Your task to perform on an android device: set default search engine in the chrome app Image 0: 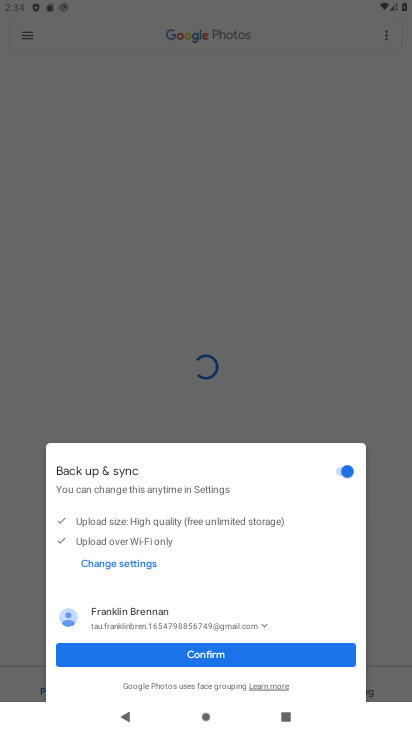
Step 0: click (231, 661)
Your task to perform on an android device: set default search engine in the chrome app Image 1: 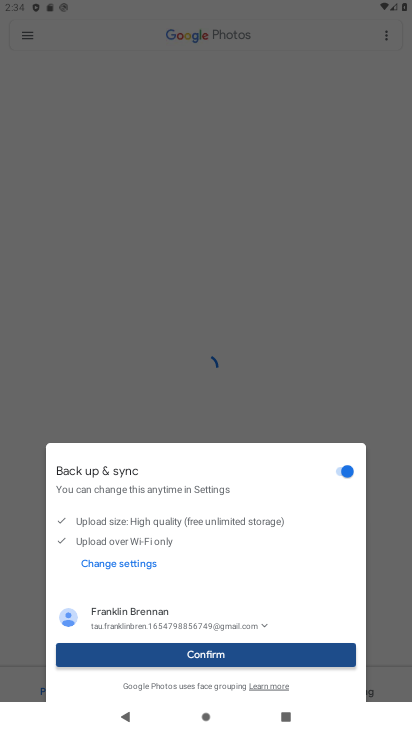
Step 1: click (232, 659)
Your task to perform on an android device: set default search engine in the chrome app Image 2: 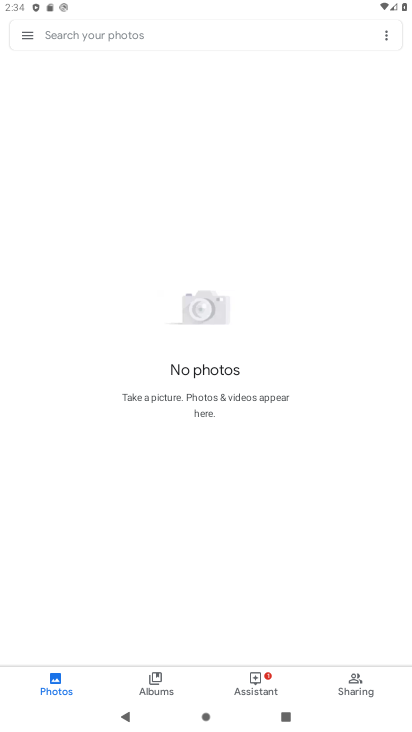
Step 2: press back button
Your task to perform on an android device: set default search engine in the chrome app Image 3: 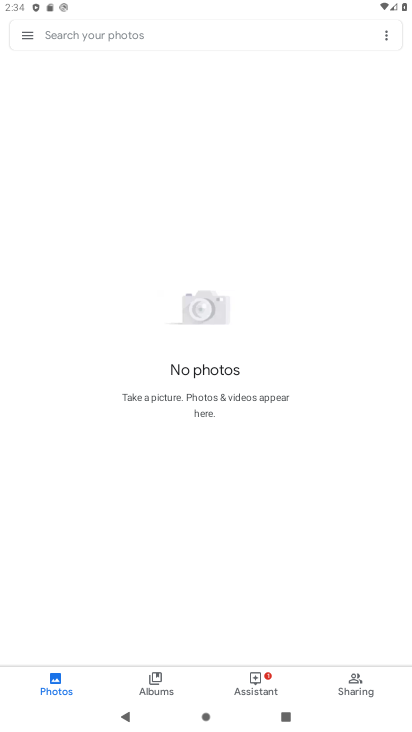
Step 3: press back button
Your task to perform on an android device: set default search engine in the chrome app Image 4: 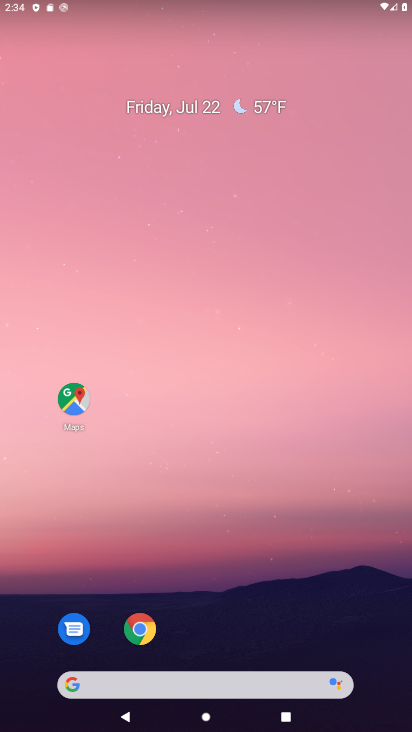
Step 4: press home button
Your task to perform on an android device: set default search engine in the chrome app Image 5: 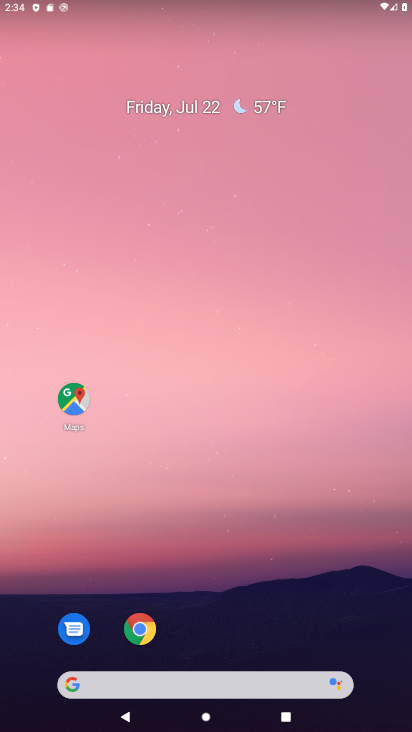
Step 5: drag from (215, 544) to (185, 100)
Your task to perform on an android device: set default search engine in the chrome app Image 6: 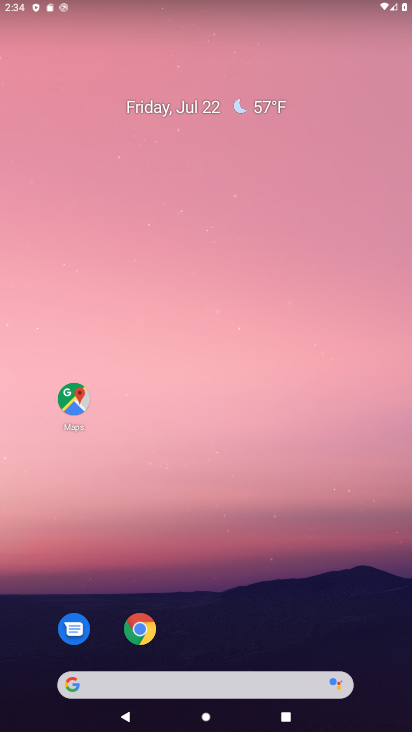
Step 6: drag from (253, 514) to (241, 191)
Your task to perform on an android device: set default search engine in the chrome app Image 7: 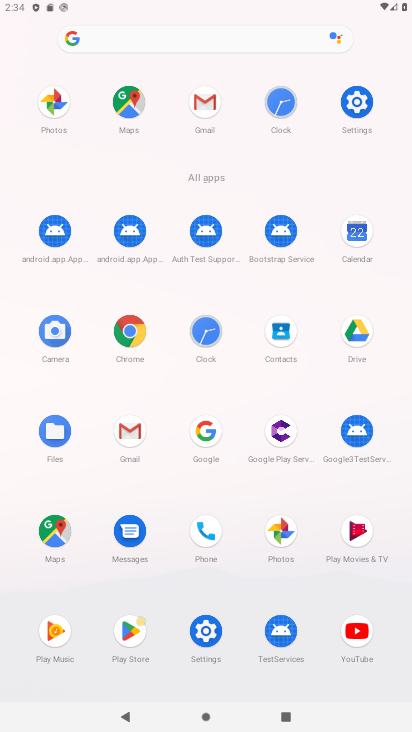
Step 7: click (123, 325)
Your task to perform on an android device: set default search engine in the chrome app Image 8: 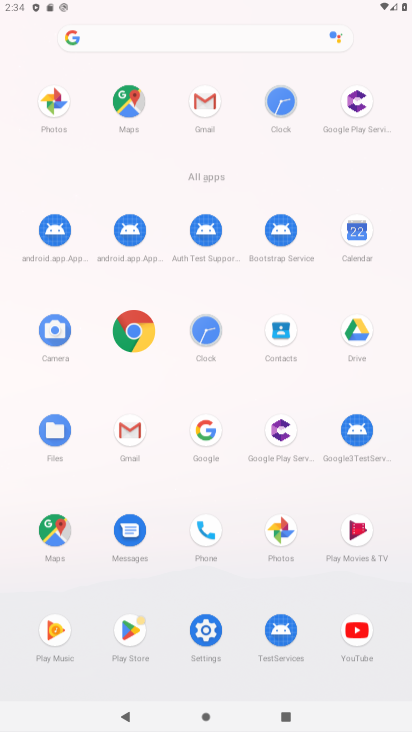
Step 8: click (127, 332)
Your task to perform on an android device: set default search engine in the chrome app Image 9: 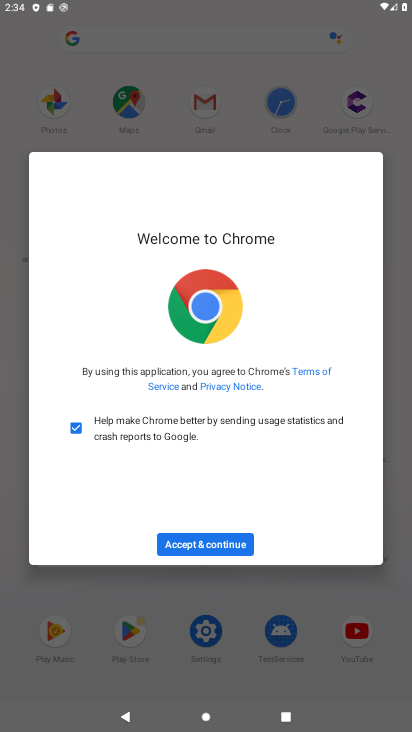
Step 9: click (208, 543)
Your task to perform on an android device: set default search engine in the chrome app Image 10: 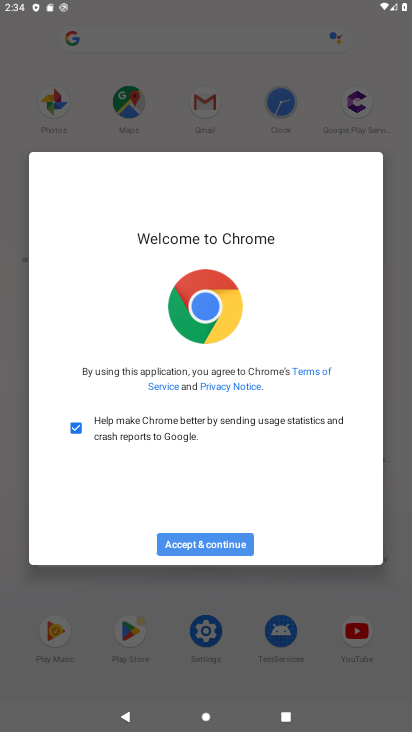
Step 10: click (209, 543)
Your task to perform on an android device: set default search engine in the chrome app Image 11: 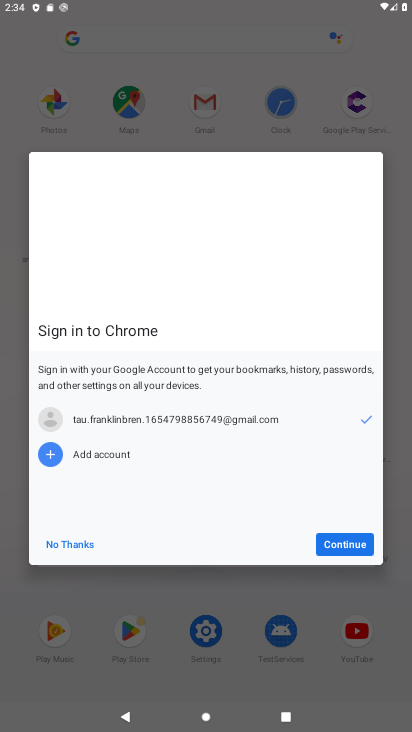
Step 11: click (212, 547)
Your task to perform on an android device: set default search engine in the chrome app Image 12: 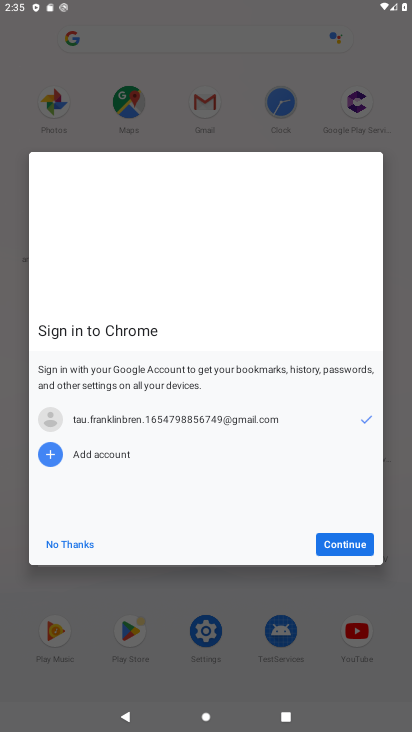
Step 12: click (65, 551)
Your task to perform on an android device: set default search engine in the chrome app Image 13: 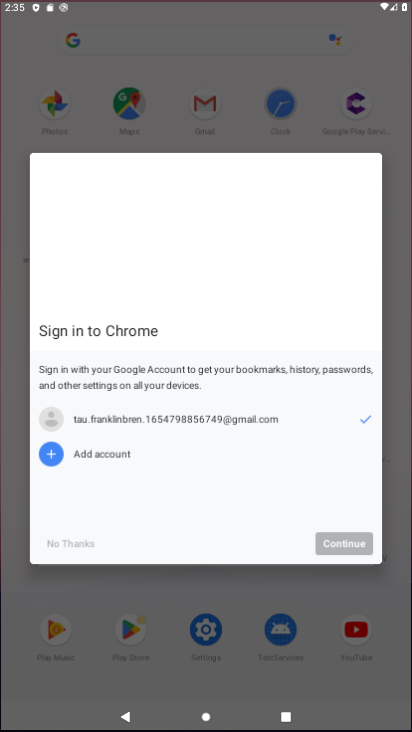
Step 13: click (66, 548)
Your task to perform on an android device: set default search engine in the chrome app Image 14: 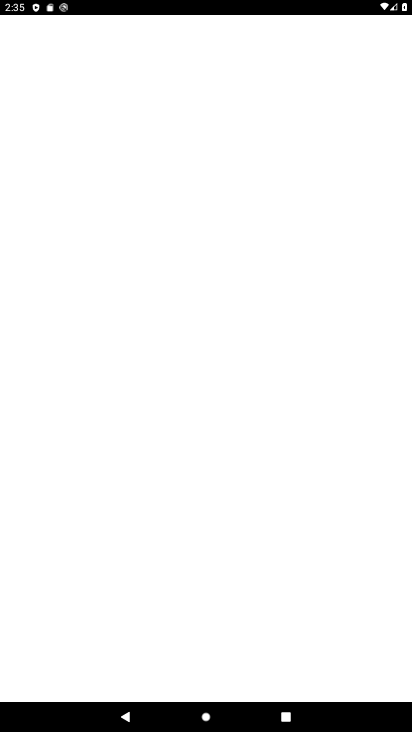
Step 14: click (66, 548)
Your task to perform on an android device: set default search engine in the chrome app Image 15: 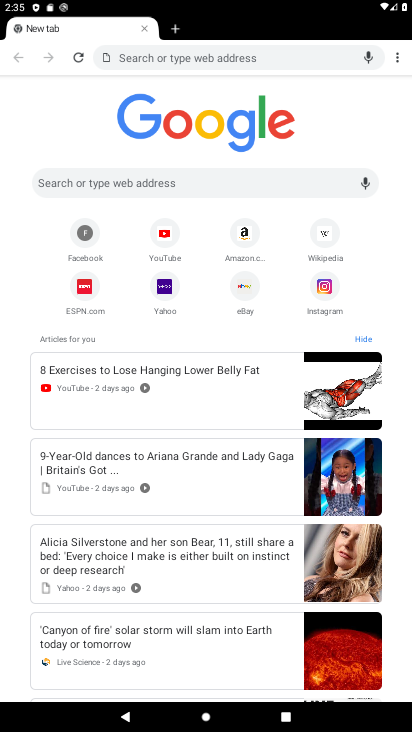
Step 15: click (392, 62)
Your task to perform on an android device: set default search engine in the chrome app Image 16: 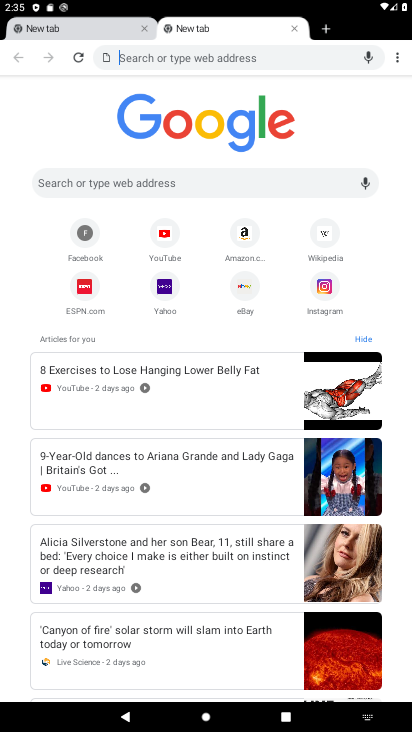
Step 16: click (393, 55)
Your task to perform on an android device: set default search engine in the chrome app Image 17: 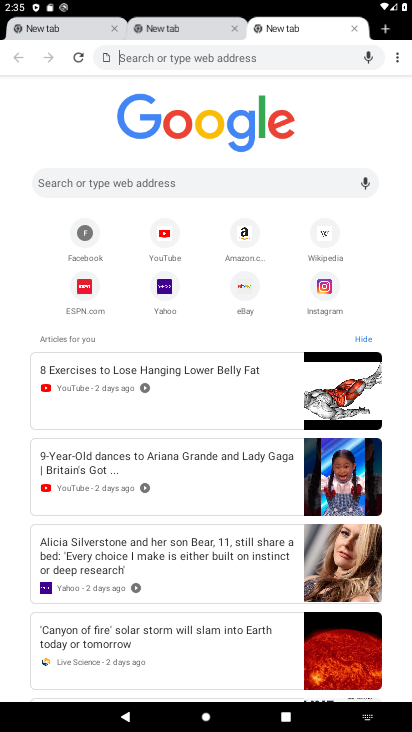
Step 17: drag from (386, 55) to (286, 58)
Your task to perform on an android device: set default search engine in the chrome app Image 18: 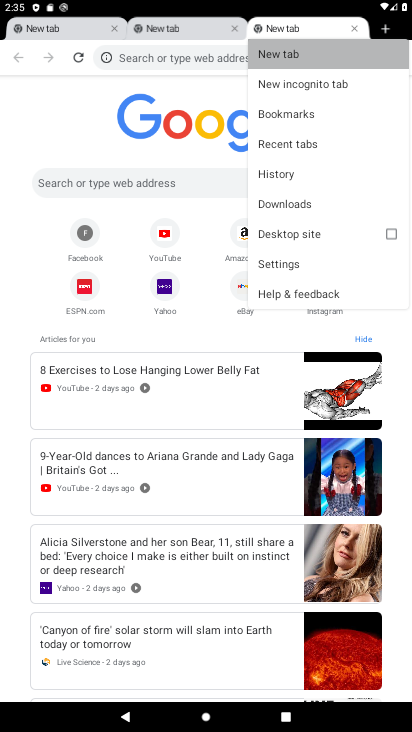
Step 18: click (286, 58)
Your task to perform on an android device: set default search engine in the chrome app Image 19: 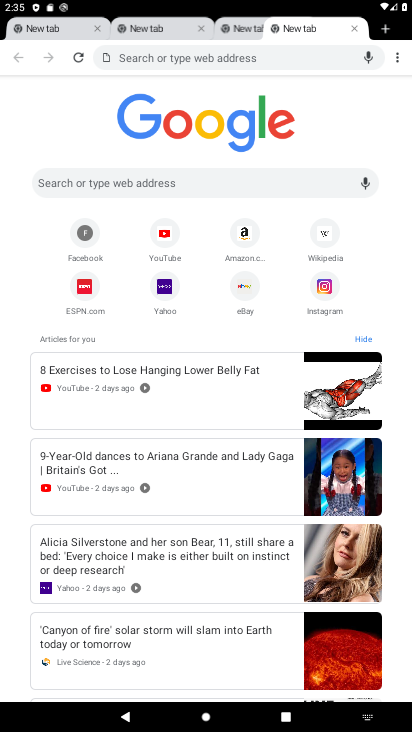
Step 19: drag from (391, 58) to (300, 50)
Your task to perform on an android device: set default search engine in the chrome app Image 20: 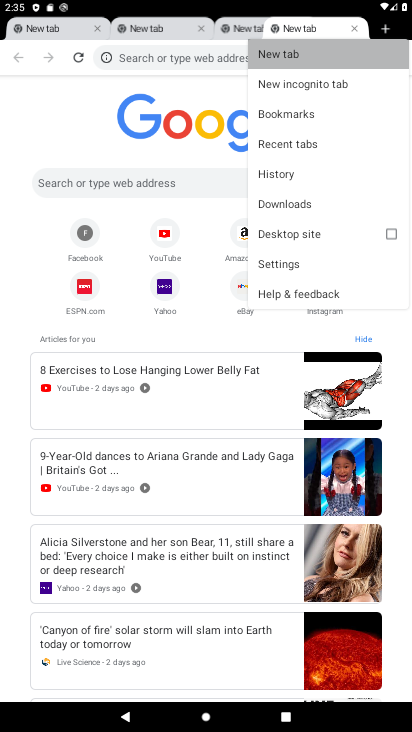
Step 20: click (296, 54)
Your task to perform on an android device: set default search engine in the chrome app Image 21: 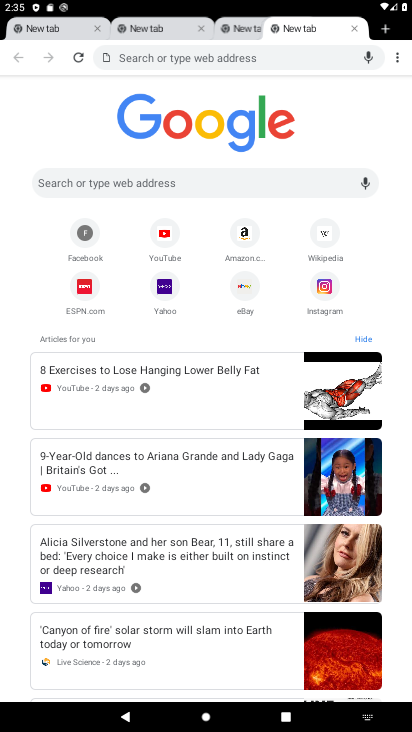
Step 21: click (393, 61)
Your task to perform on an android device: set default search engine in the chrome app Image 22: 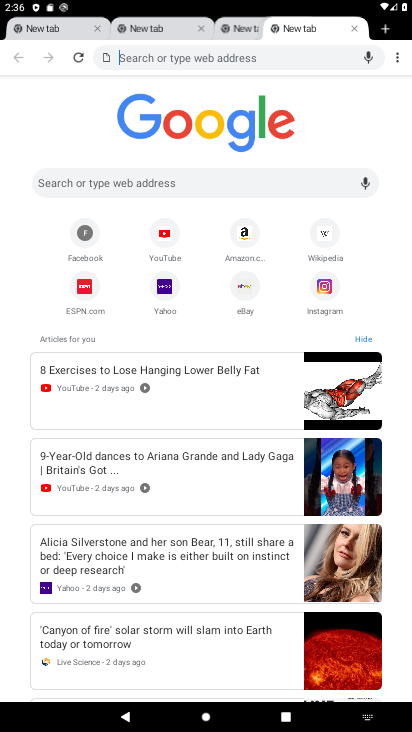
Step 22: task complete